Your task to perform on an android device: open the mobile data screen to see how much data has been used Image 0: 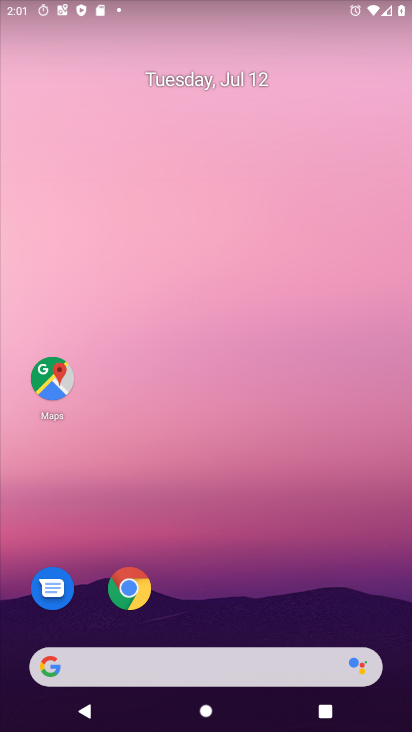
Step 0: click (337, 91)
Your task to perform on an android device: open the mobile data screen to see how much data has been used Image 1: 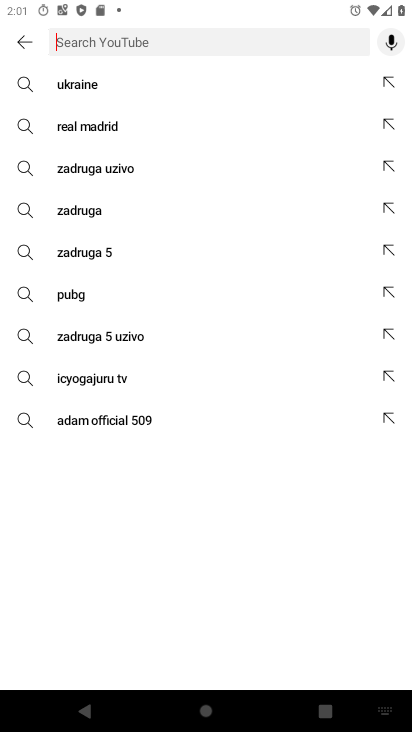
Step 1: press home button
Your task to perform on an android device: open the mobile data screen to see how much data has been used Image 2: 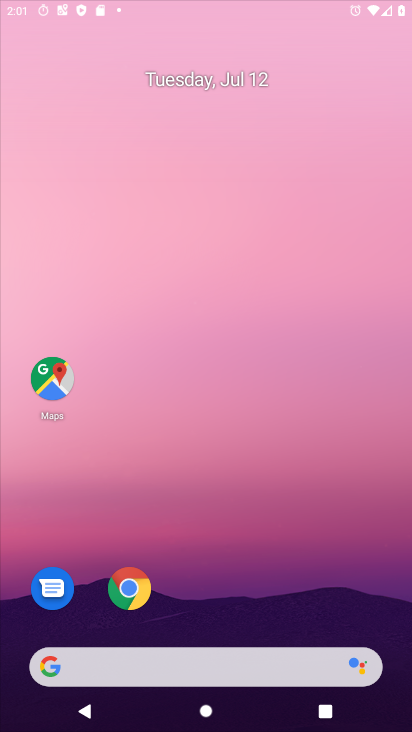
Step 2: drag from (179, 593) to (232, 180)
Your task to perform on an android device: open the mobile data screen to see how much data has been used Image 3: 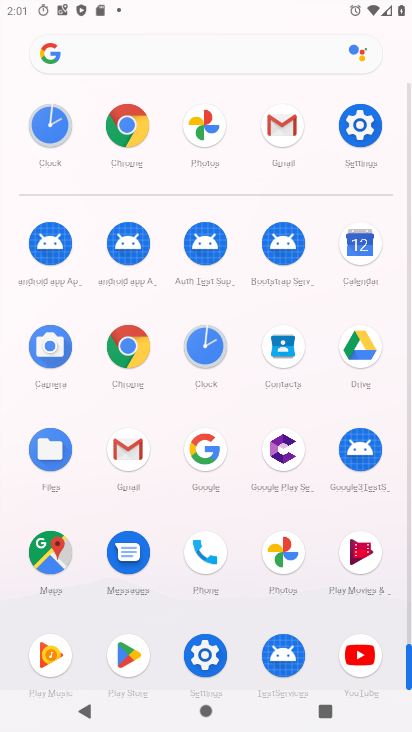
Step 3: click (359, 116)
Your task to perform on an android device: open the mobile data screen to see how much data has been used Image 4: 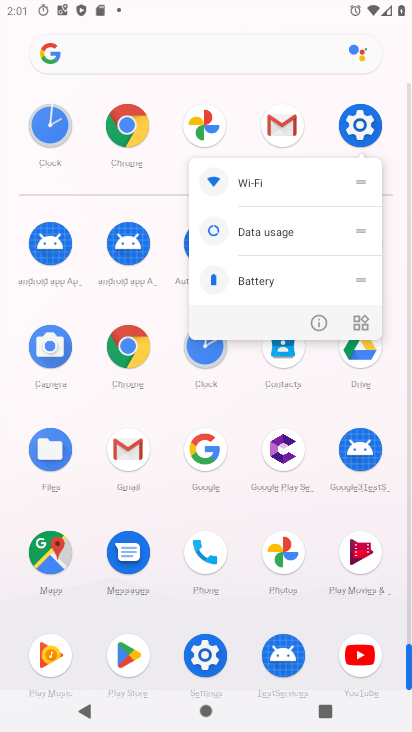
Step 4: click (246, 217)
Your task to perform on an android device: open the mobile data screen to see how much data has been used Image 5: 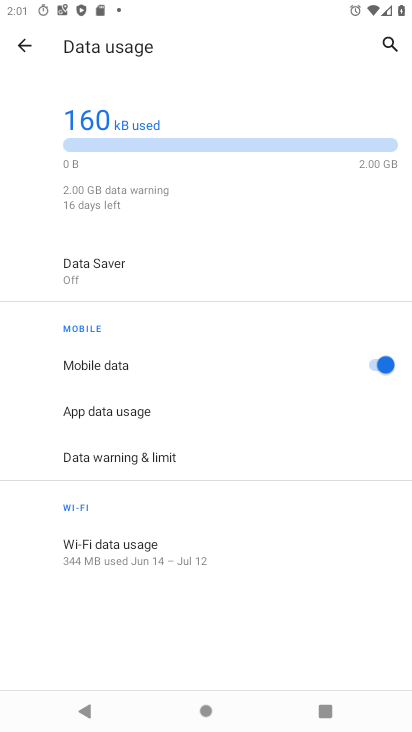
Step 5: task complete